Your task to perform on an android device: toggle show notifications on the lock screen Image 0: 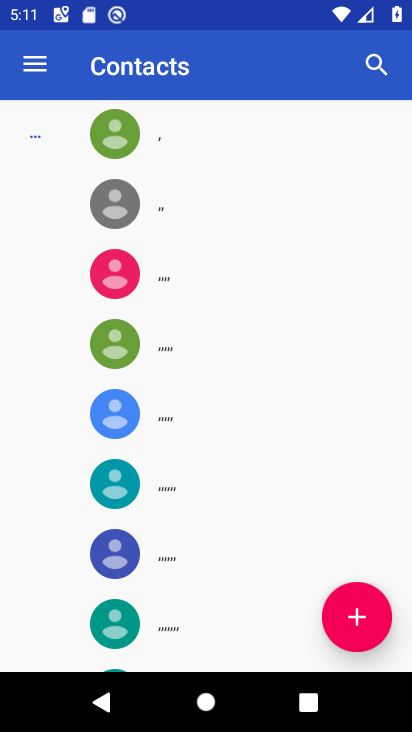
Step 0: press home button
Your task to perform on an android device: toggle show notifications on the lock screen Image 1: 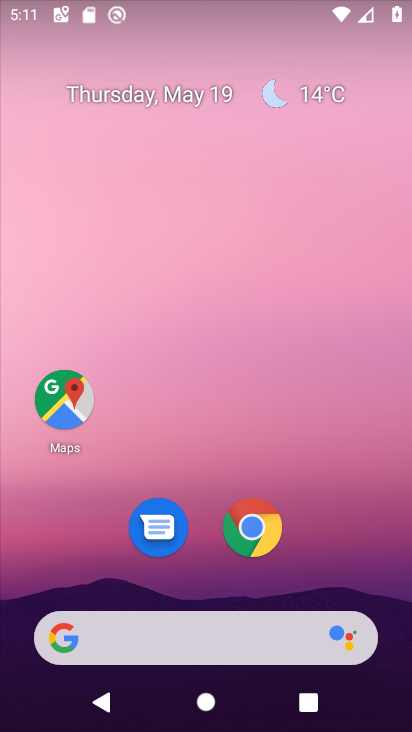
Step 1: drag from (340, 581) to (238, 87)
Your task to perform on an android device: toggle show notifications on the lock screen Image 2: 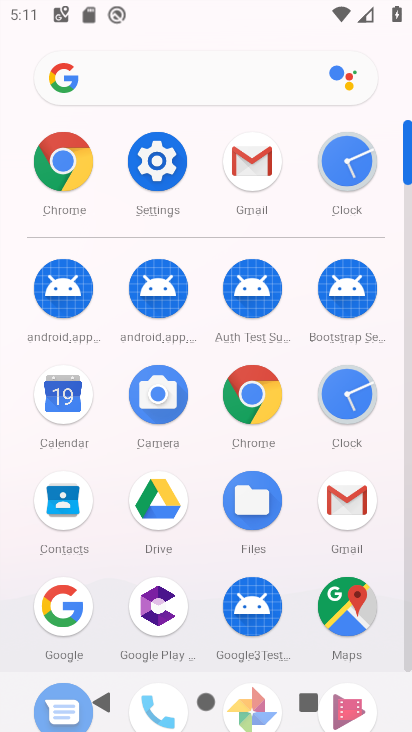
Step 2: click (161, 167)
Your task to perform on an android device: toggle show notifications on the lock screen Image 3: 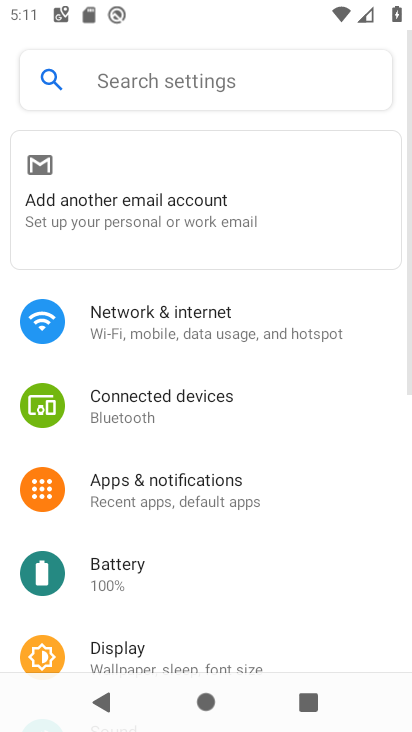
Step 3: click (213, 489)
Your task to perform on an android device: toggle show notifications on the lock screen Image 4: 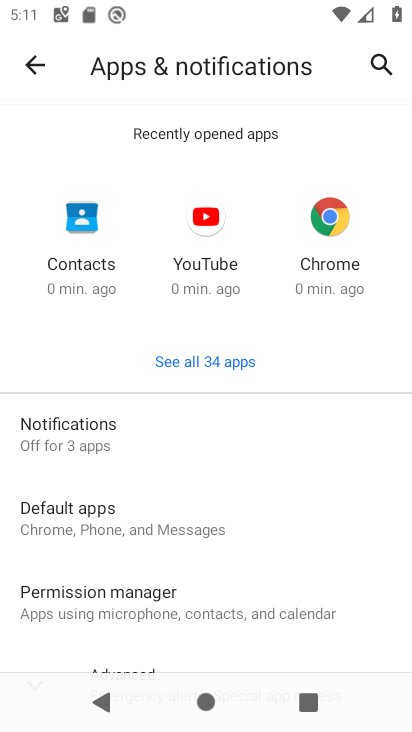
Step 4: drag from (247, 550) to (259, 347)
Your task to perform on an android device: toggle show notifications on the lock screen Image 5: 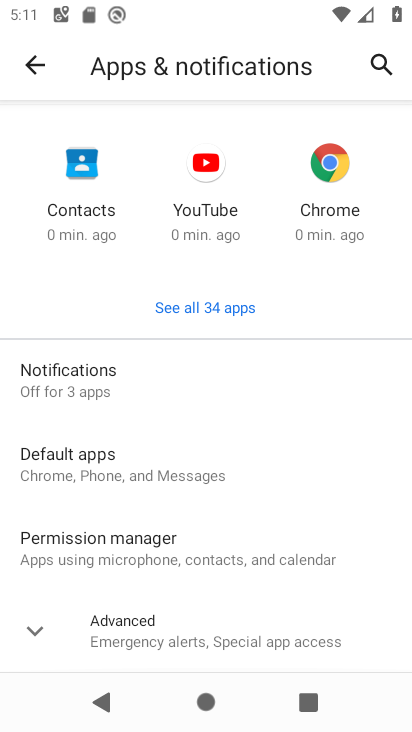
Step 5: click (62, 391)
Your task to perform on an android device: toggle show notifications on the lock screen Image 6: 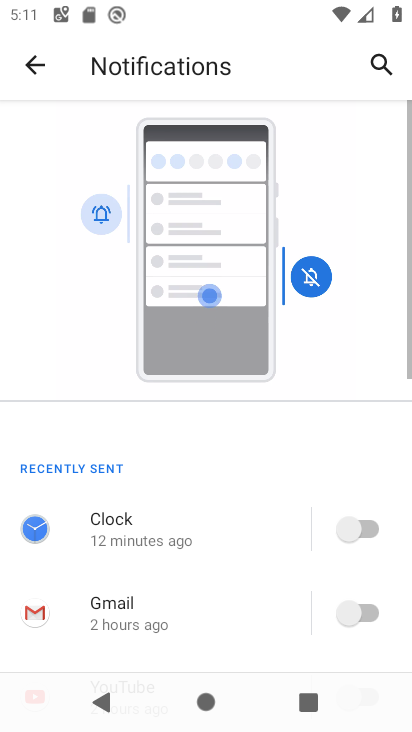
Step 6: drag from (246, 585) to (255, 161)
Your task to perform on an android device: toggle show notifications on the lock screen Image 7: 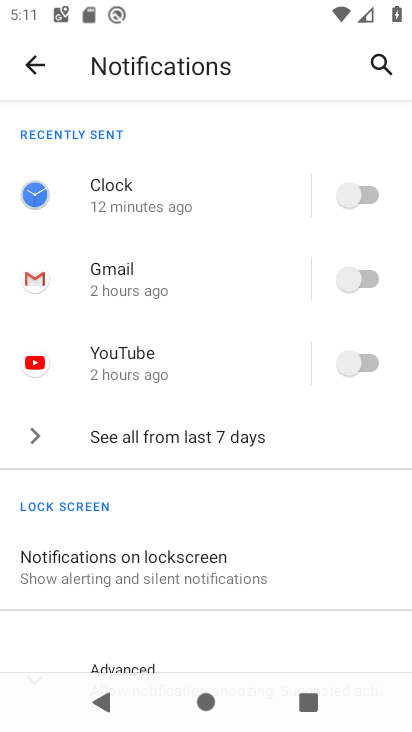
Step 7: click (181, 577)
Your task to perform on an android device: toggle show notifications on the lock screen Image 8: 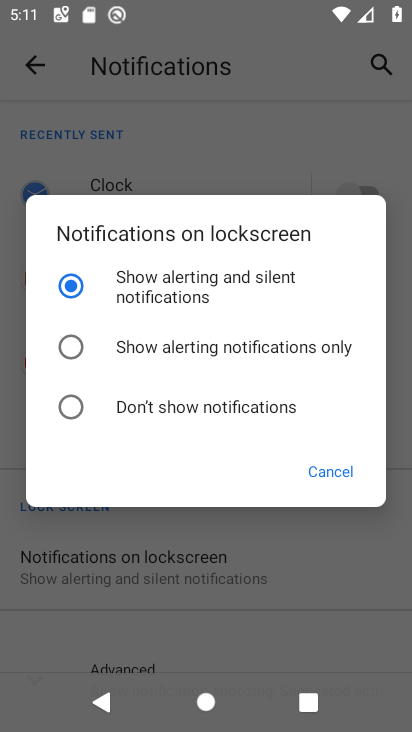
Step 8: click (189, 413)
Your task to perform on an android device: toggle show notifications on the lock screen Image 9: 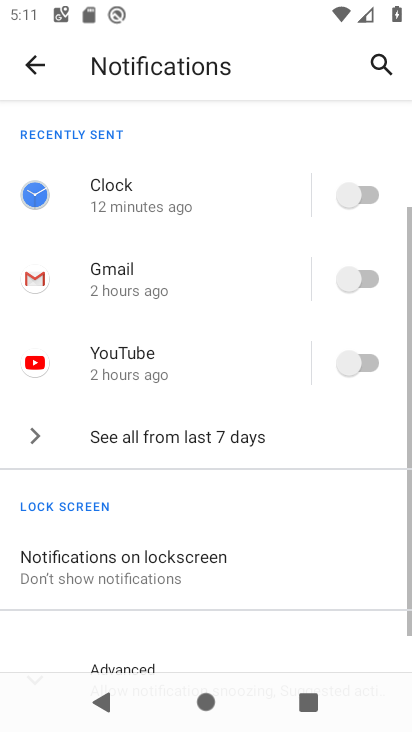
Step 9: task complete